Your task to perform on an android device: Is it going to rain today? Image 0: 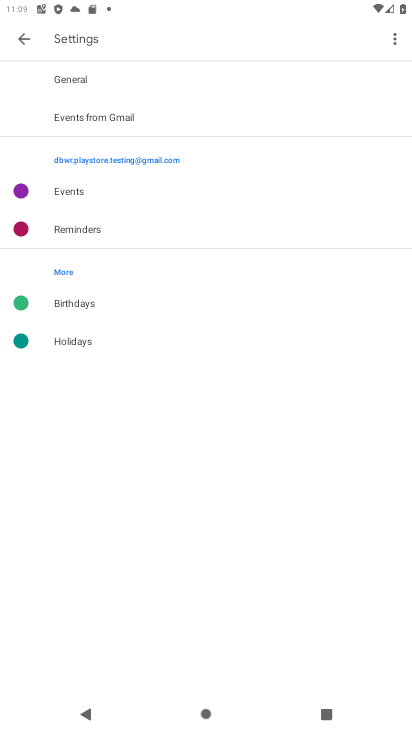
Step 0: press home button
Your task to perform on an android device: Is it going to rain today? Image 1: 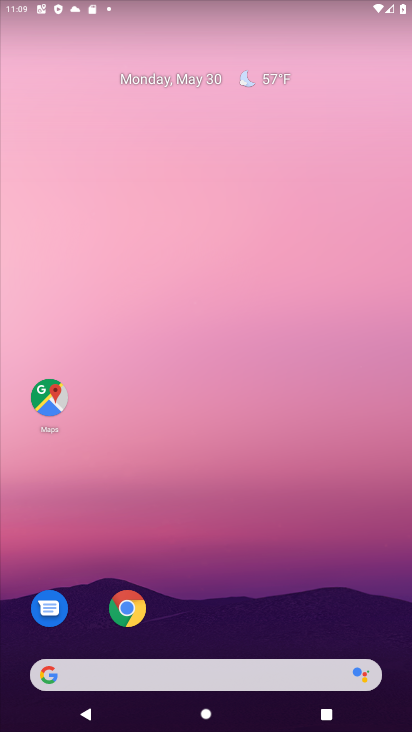
Step 1: drag from (285, 472) to (211, 17)
Your task to perform on an android device: Is it going to rain today? Image 2: 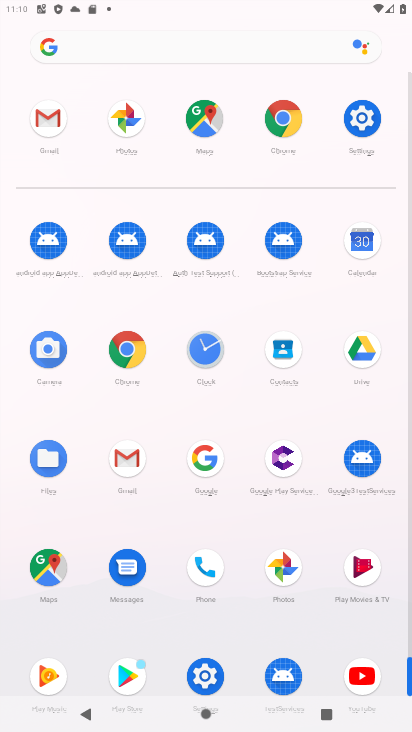
Step 2: drag from (2, 541) to (1, 219)
Your task to perform on an android device: Is it going to rain today? Image 3: 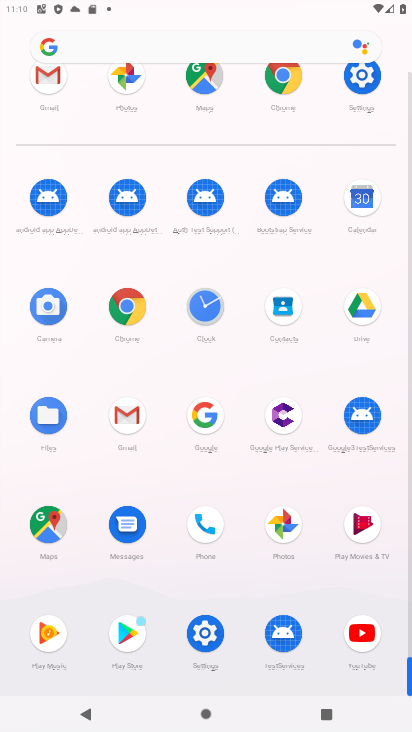
Step 3: click (128, 302)
Your task to perform on an android device: Is it going to rain today? Image 4: 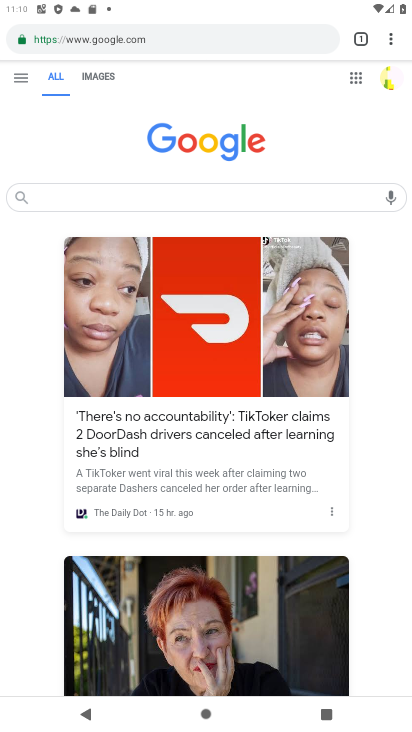
Step 4: click (150, 32)
Your task to perform on an android device: Is it going to rain today? Image 5: 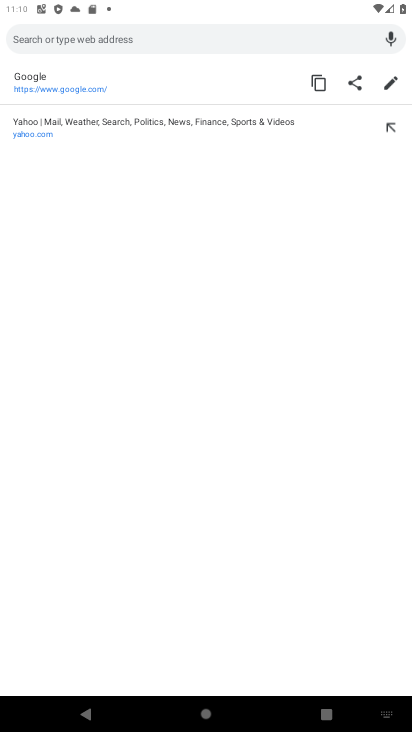
Step 5: type "Is it going to rain today?"
Your task to perform on an android device: Is it going to rain today? Image 6: 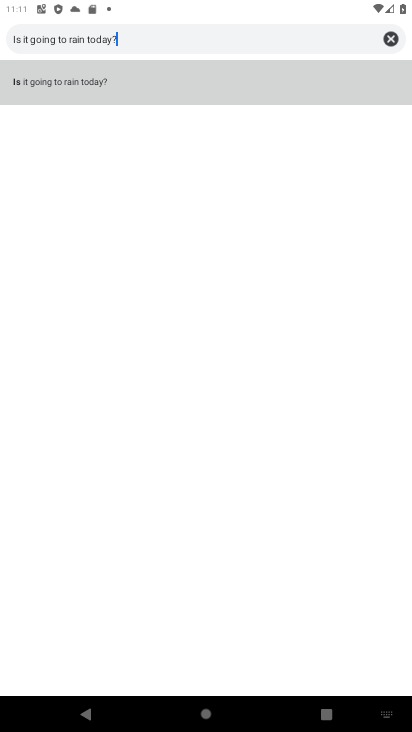
Step 6: click (65, 74)
Your task to perform on an android device: Is it going to rain today? Image 7: 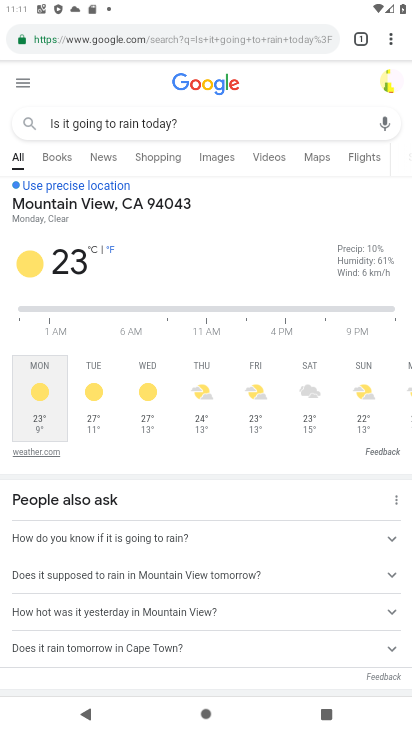
Step 7: task complete